Your task to perform on an android device: turn on bluetooth scan Image 0: 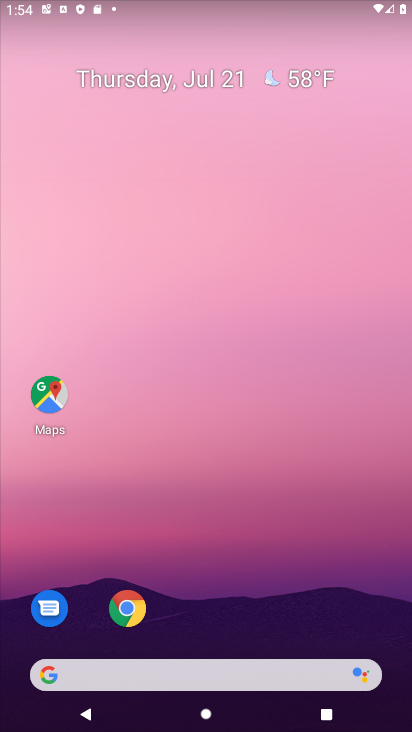
Step 0: drag from (401, 647) to (306, 47)
Your task to perform on an android device: turn on bluetooth scan Image 1: 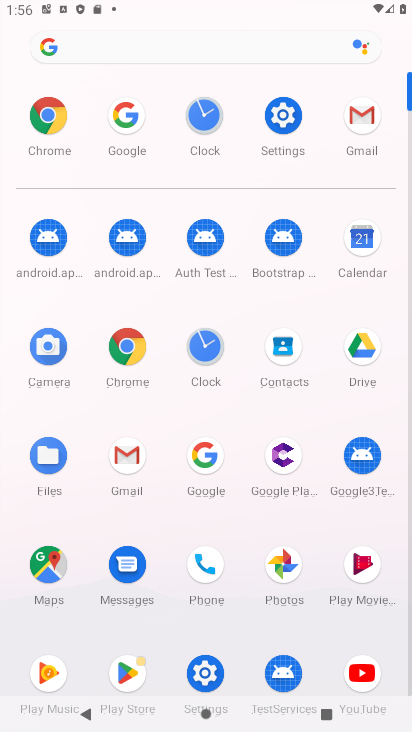
Step 1: click (202, 676)
Your task to perform on an android device: turn on bluetooth scan Image 2: 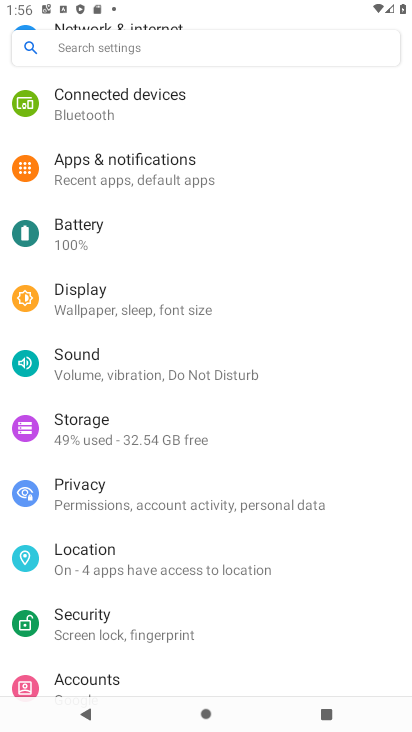
Step 2: click (133, 564)
Your task to perform on an android device: turn on bluetooth scan Image 3: 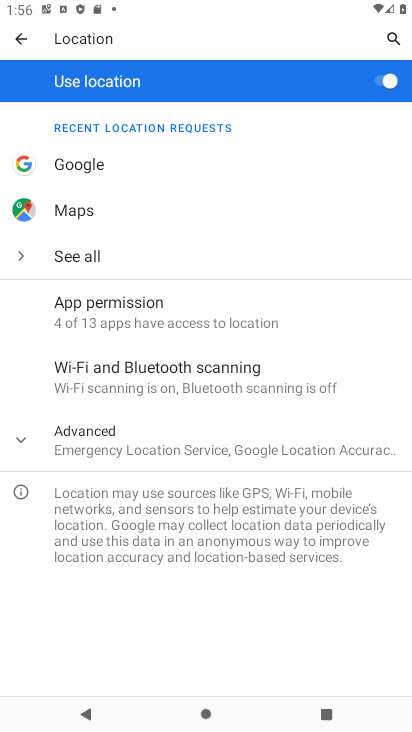
Step 3: click (140, 357)
Your task to perform on an android device: turn on bluetooth scan Image 4: 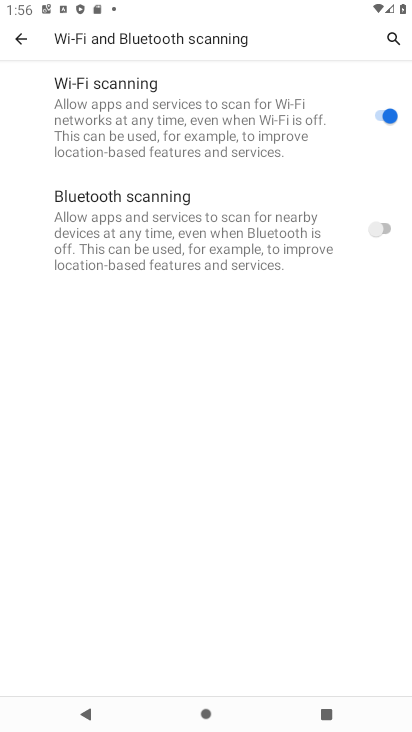
Step 4: click (358, 234)
Your task to perform on an android device: turn on bluetooth scan Image 5: 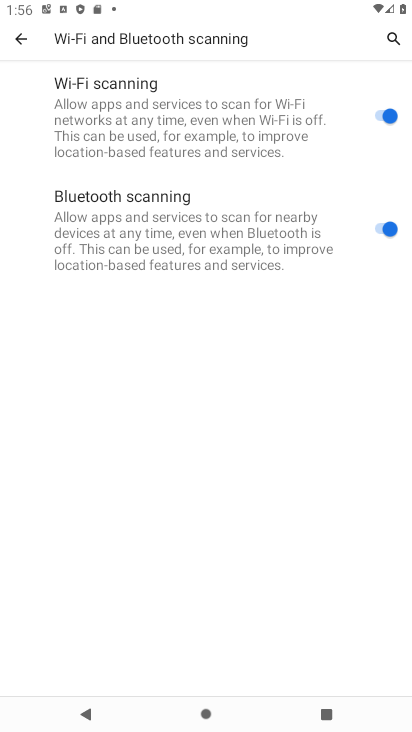
Step 5: task complete